Your task to perform on an android device: allow notifications from all sites in the chrome app Image 0: 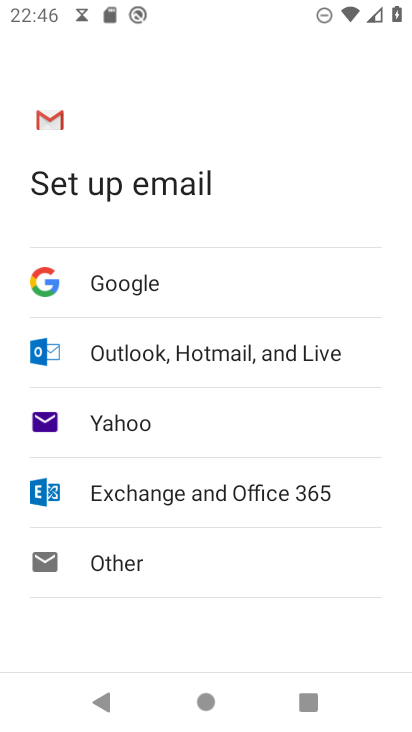
Step 0: press home button
Your task to perform on an android device: allow notifications from all sites in the chrome app Image 1: 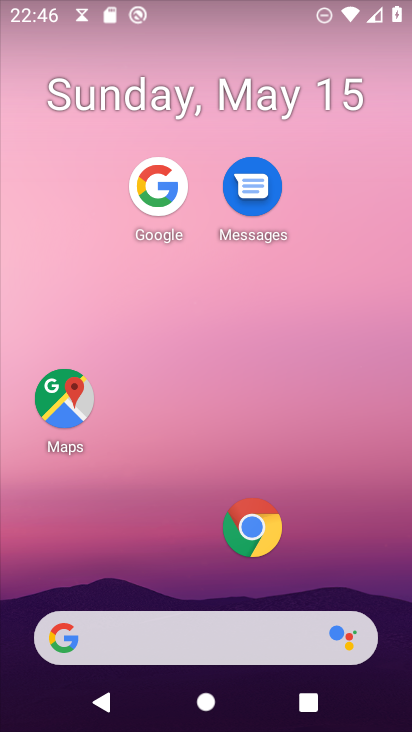
Step 1: click (250, 538)
Your task to perform on an android device: allow notifications from all sites in the chrome app Image 2: 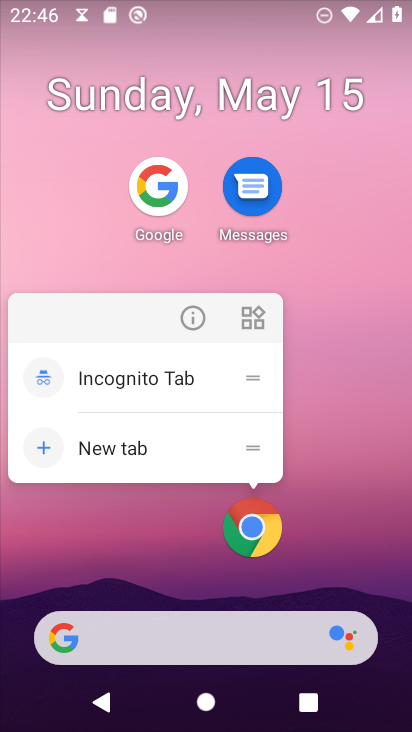
Step 2: click (250, 529)
Your task to perform on an android device: allow notifications from all sites in the chrome app Image 3: 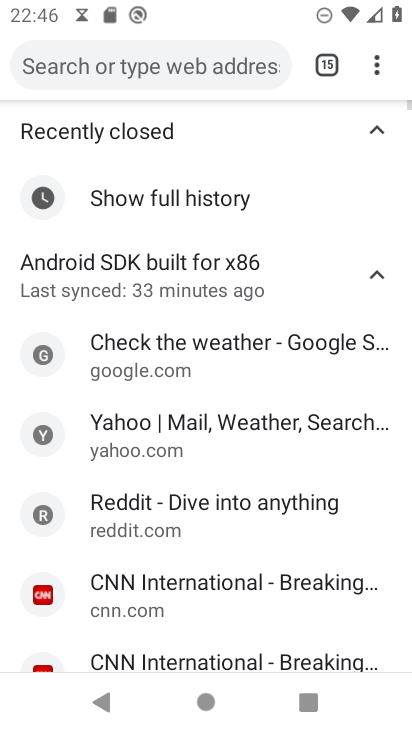
Step 3: drag from (377, 67) to (259, 538)
Your task to perform on an android device: allow notifications from all sites in the chrome app Image 4: 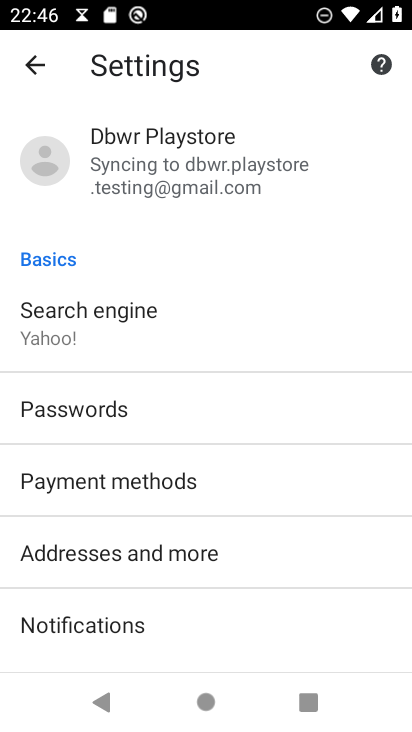
Step 4: drag from (207, 616) to (314, 378)
Your task to perform on an android device: allow notifications from all sites in the chrome app Image 5: 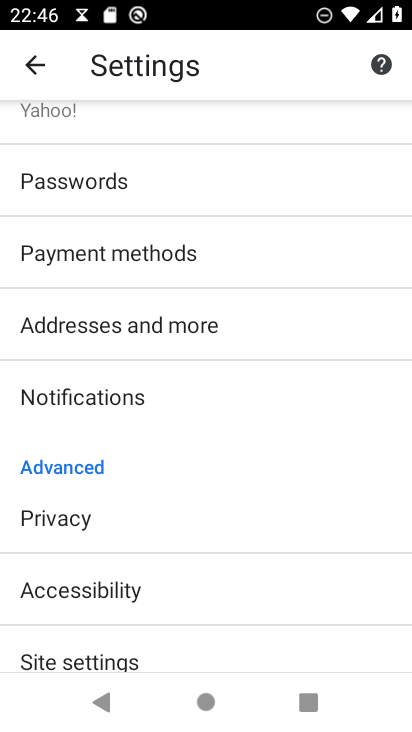
Step 5: drag from (165, 604) to (279, 329)
Your task to perform on an android device: allow notifications from all sites in the chrome app Image 6: 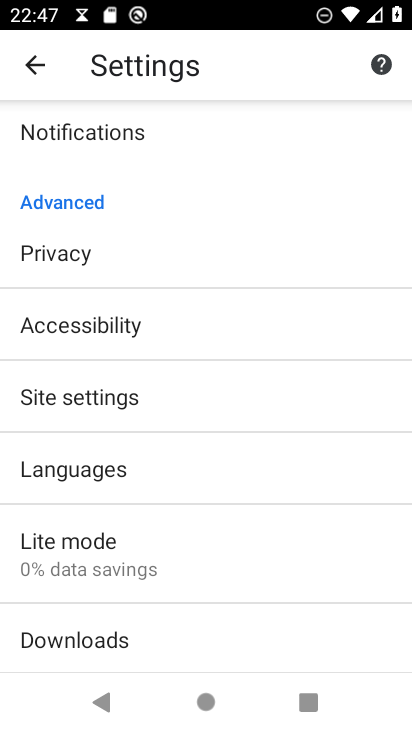
Step 6: click (115, 395)
Your task to perform on an android device: allow notifications from all sites in the chrome app Image 7: 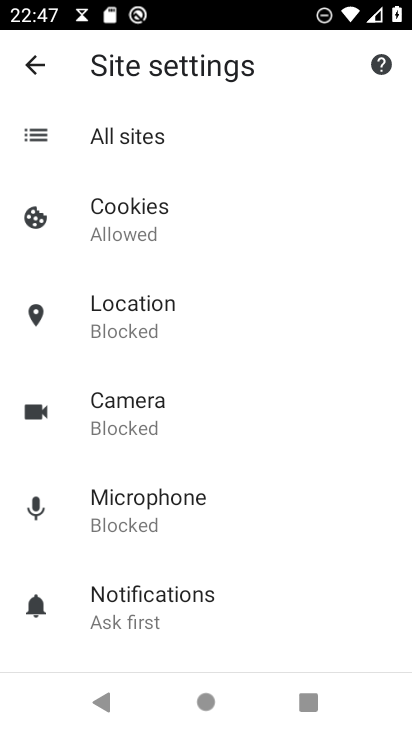
Step 7: click (181, 608)
Your task to perform on an android device: allow notifications from all sites in the chrome app Image 8: 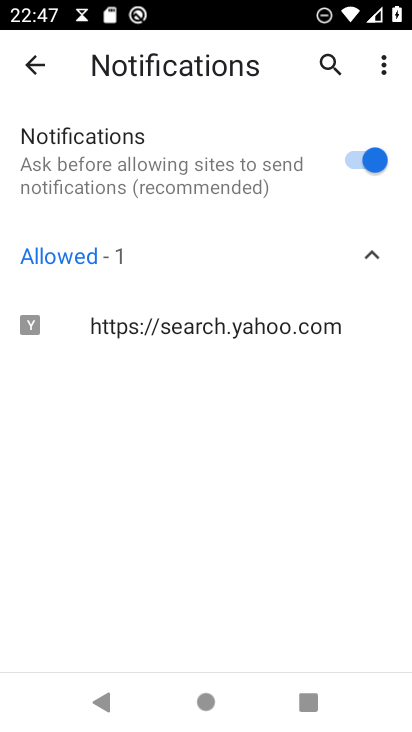
Step 8: task complete